Your task to perform on an android device: Empty the shopping cart on target.com. Image 0: 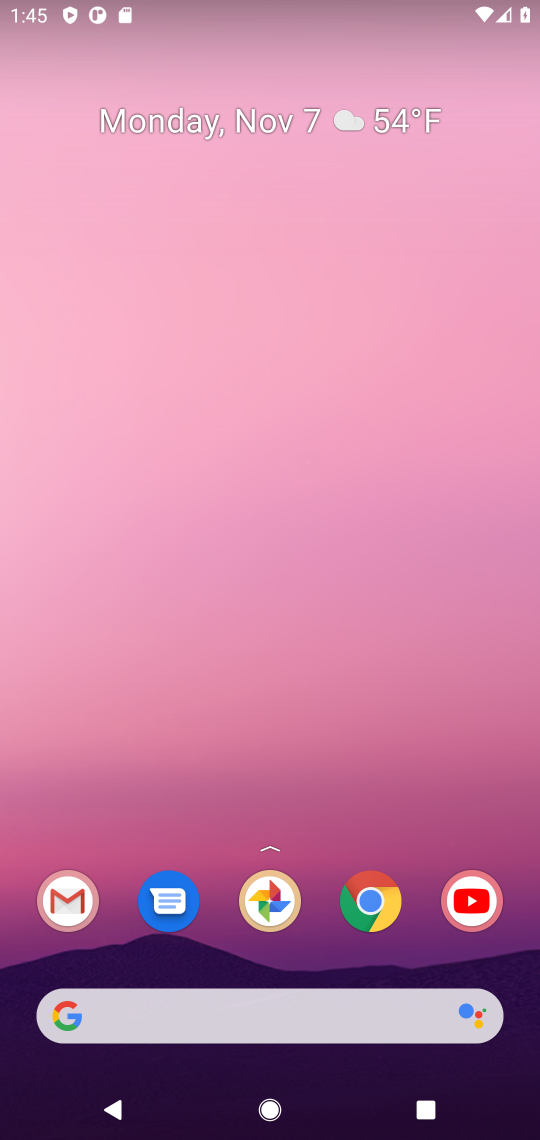
Step 0: click (365, 893)
Your task to perform on an android device: Empty the shopping cart on target.com. Image 1: 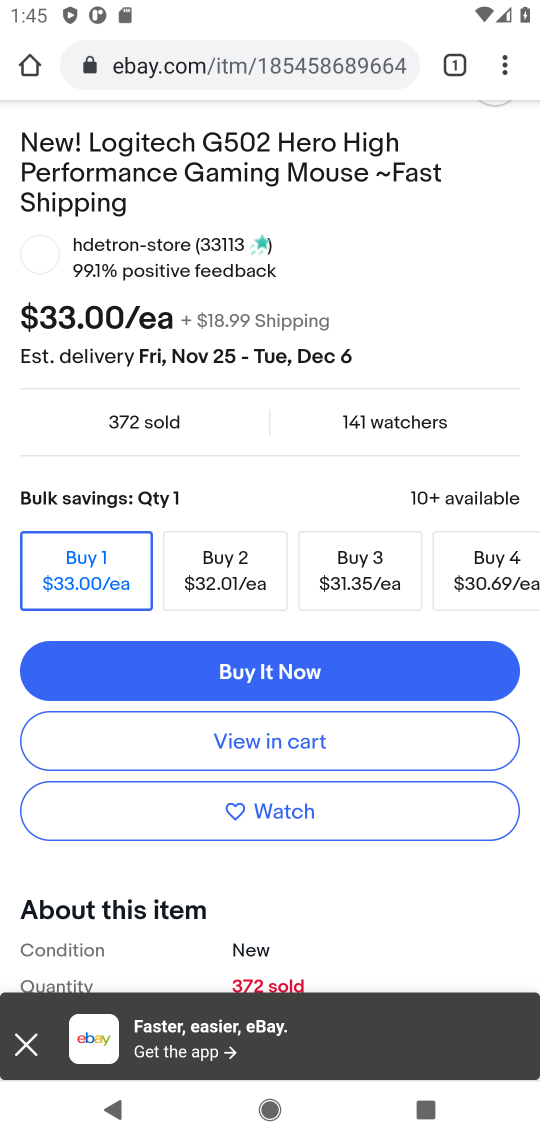
Step 1: click (201, 66)
Your task to perform on an android device: Empty the shopping cart on target.com. Image 2: 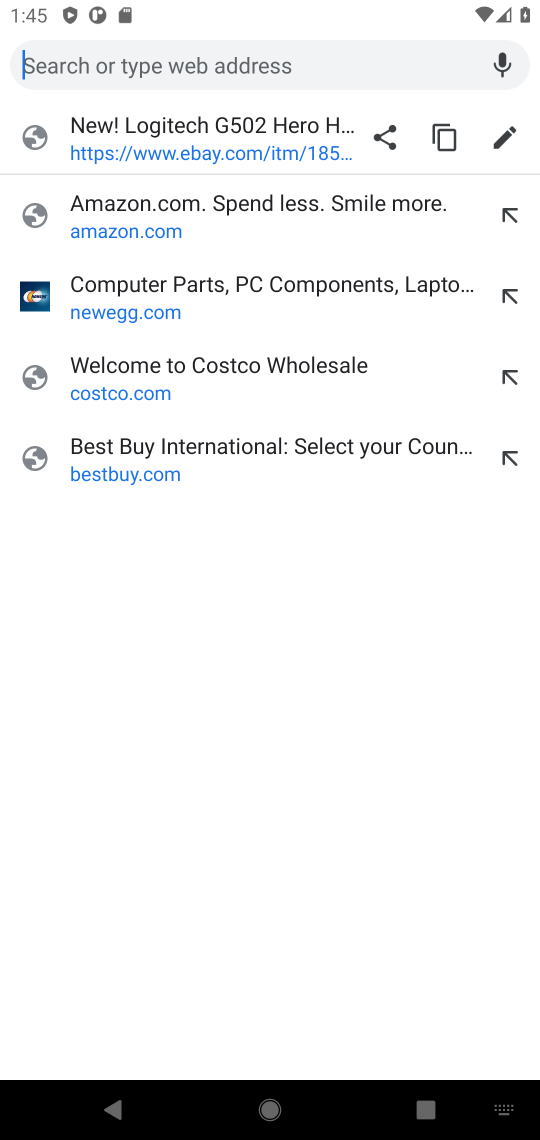
Step 2: type "target.com"
Your task to perform on an android device: Empty the shopping cart on target.com. Image 3: 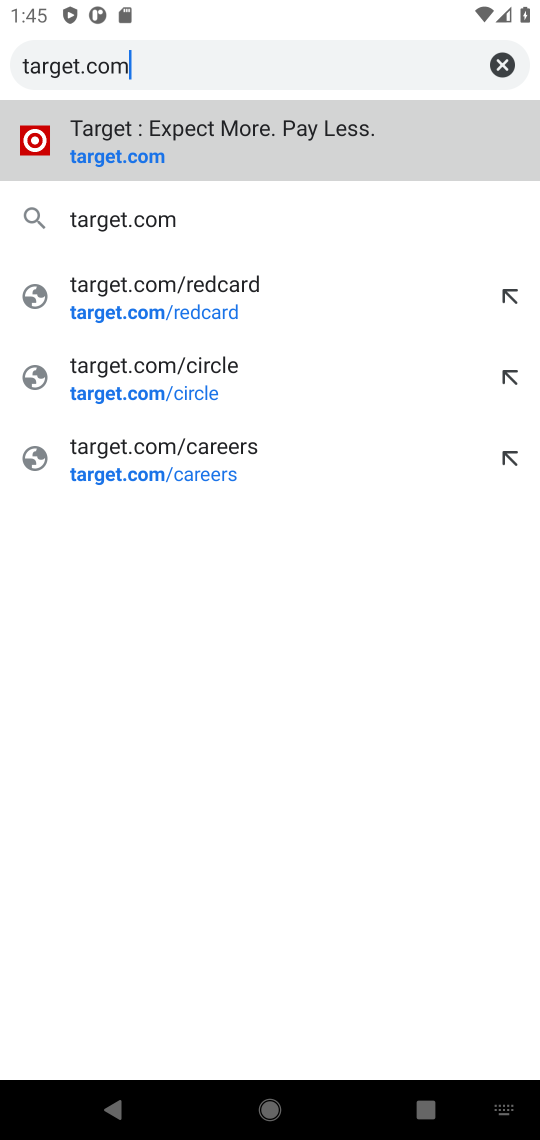
Step 3: click (111, 153)
Your task to perform on an android device: Empty the shopping cart on target.com. Image 4: 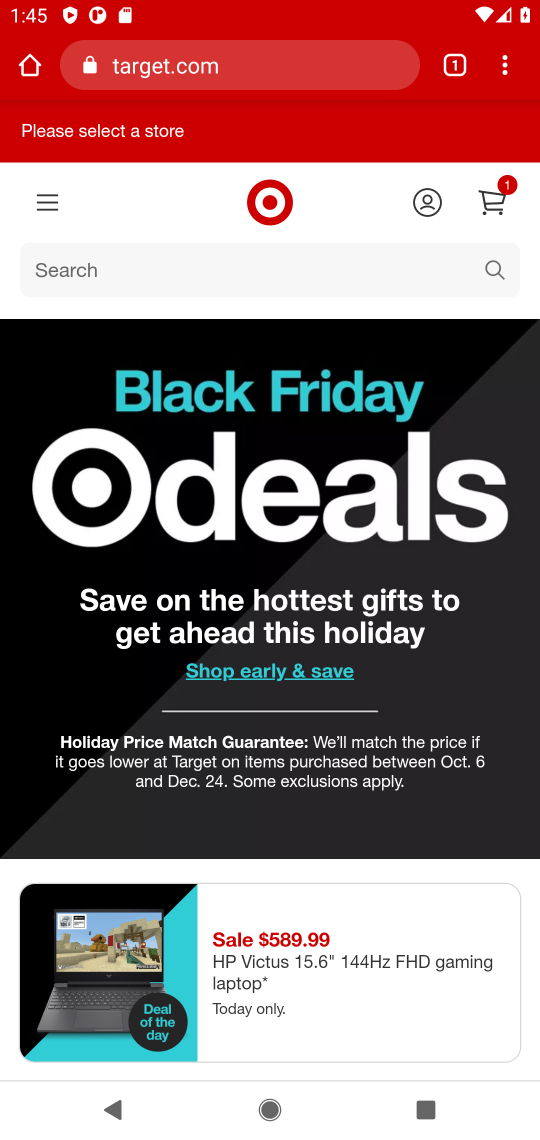
Step 4: click (489, 193)
Your task to perform on an android device: Empty the shopping cart on target.com. Image 5: 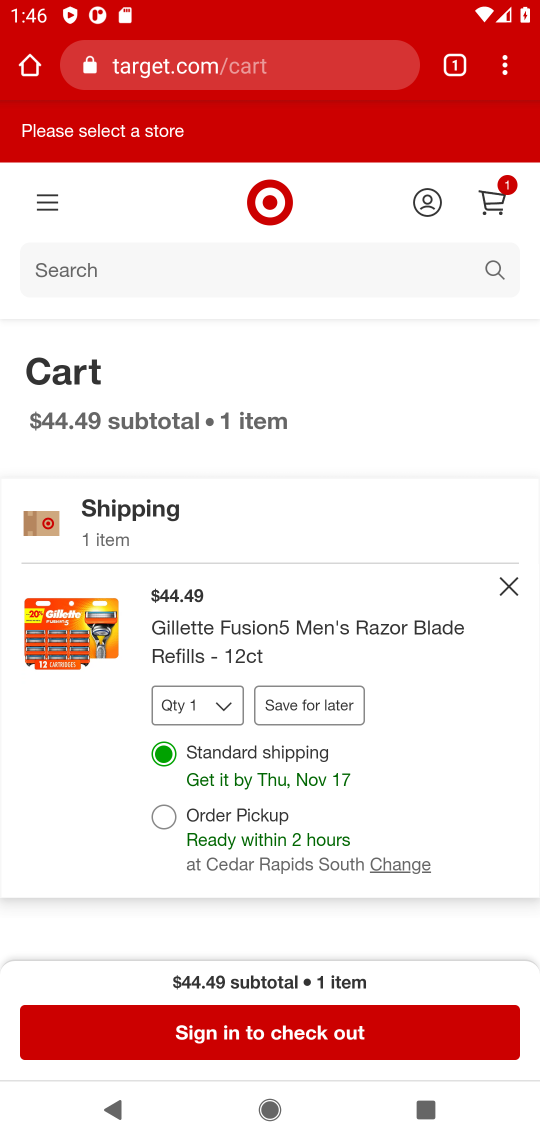
Step 5: click (504, 589)
Your task to perform on an android device: Empty the shopping cart on target.com. Image 6: 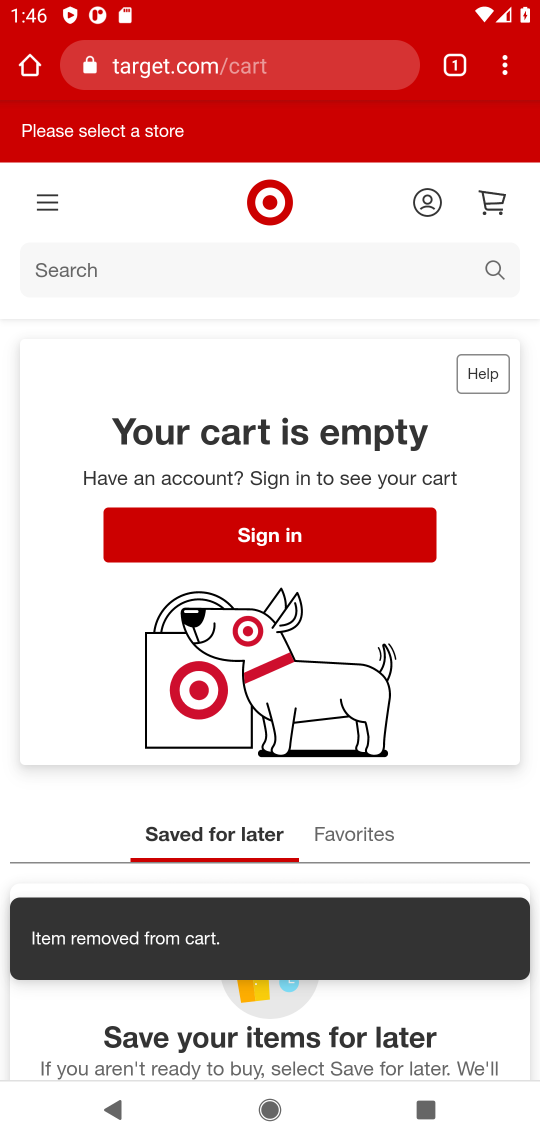
Step 6: task complete